Your task to perform on an android device: Open Amazon Image 0: 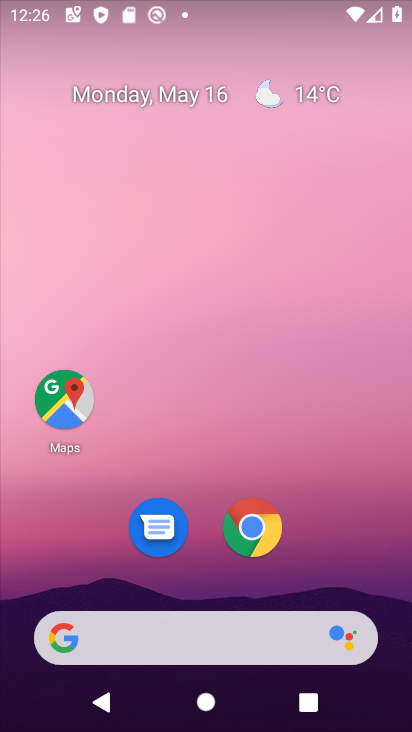
Step 0: click (255, 530)
Your task to perform on an android device: Open Amazon Image 1: 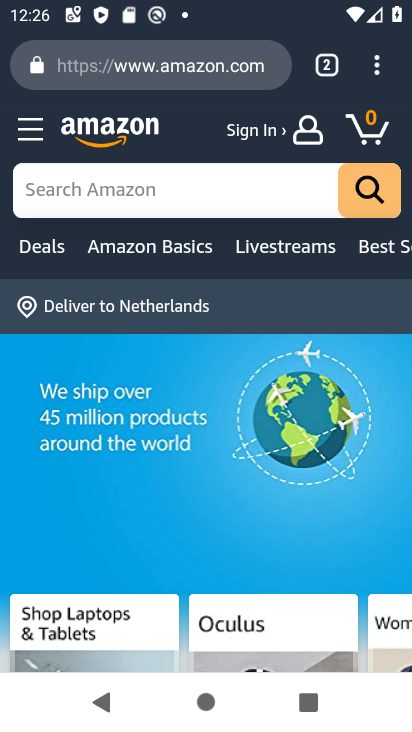
Step 1: task complete